Your task to perform on an android device: change notification settings in the gmail app Image 0: 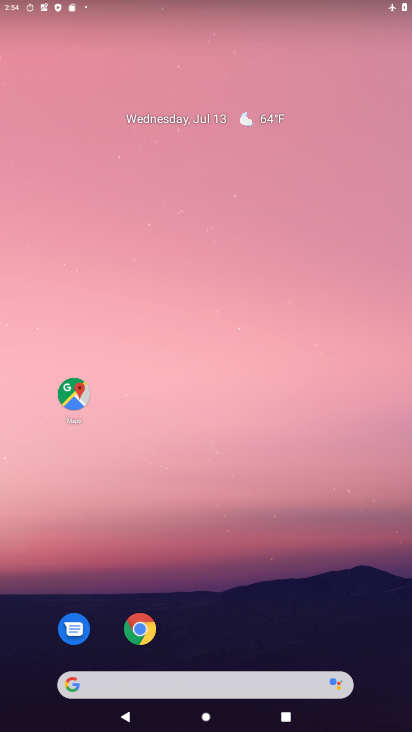
Step 0: drag from (184, 685) to (162, 3)
Your task to perform on an android device: change notification settings in the gmail app Image 1: 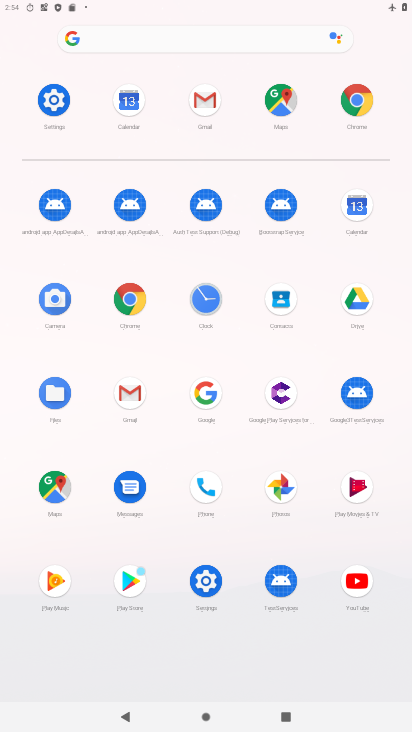
Step 1: click (125, 393)
Your task to perform on an android device: change notification settings in the gmail app Image 2: 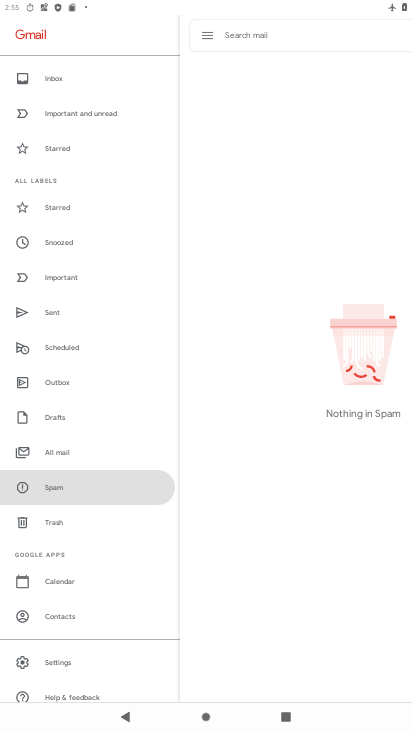
Step 2: click (55, 658)
Your task to perform on an android device: change notification settings in the gmail app Image 3: 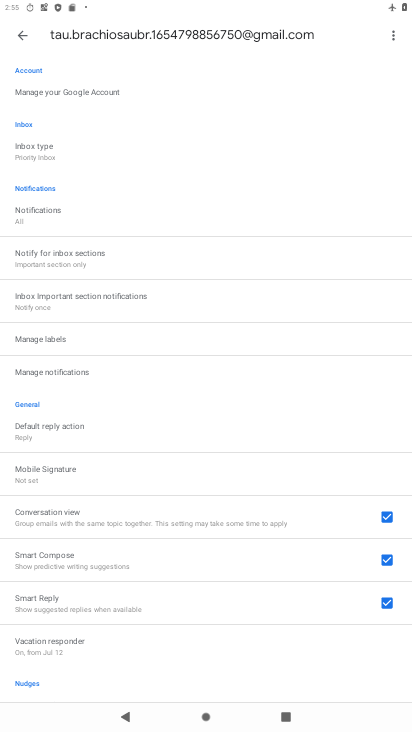
Step 3: click (45, 364)
Your task to perform on an android device: change notification settings in the gmail app Image 4: 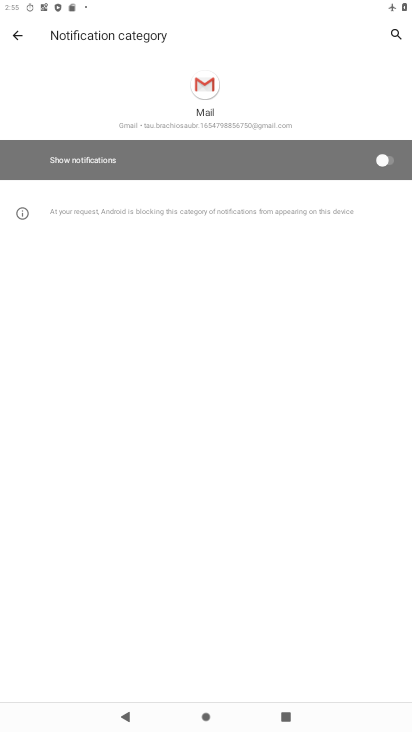
Step 4: click (388, 157)
Your task to perform on an android device: change notification settings in the gmail app Image 5: 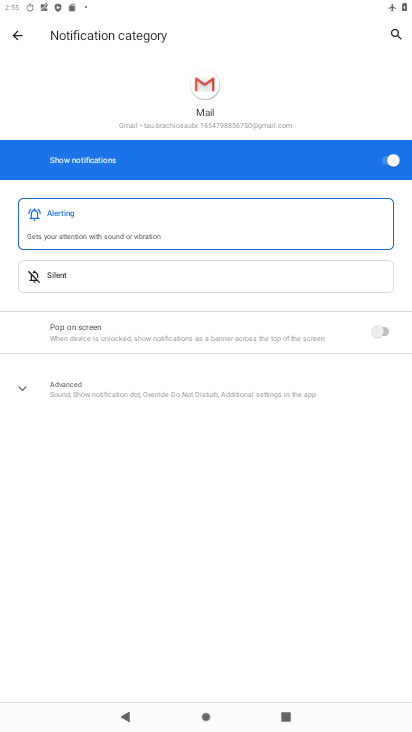
Step 5: task complete